Your task to perform on an android device: Open privacy settings Image 0: 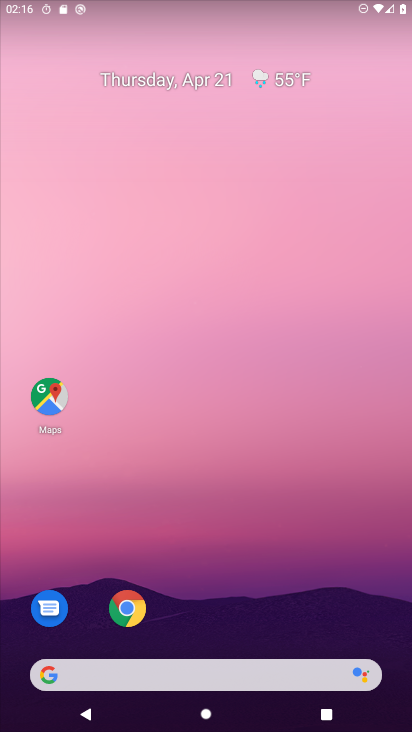
Step 0: press home button
Your task to perform on an android device: Open privacy settings Image 1: 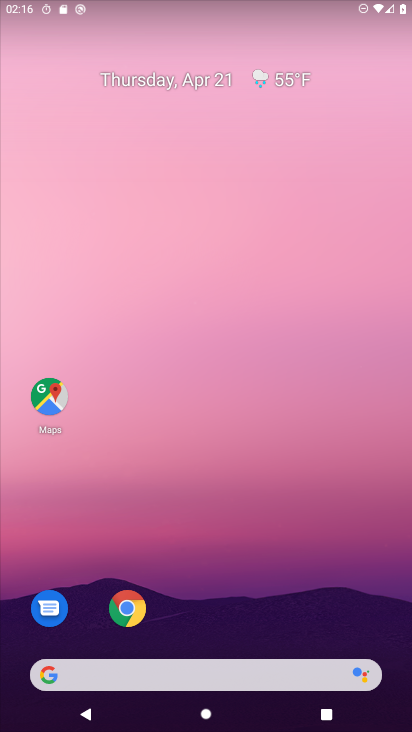
Step 1: click (130, 613)
Your task to perform on an android device: Open privacy settings Image 2: 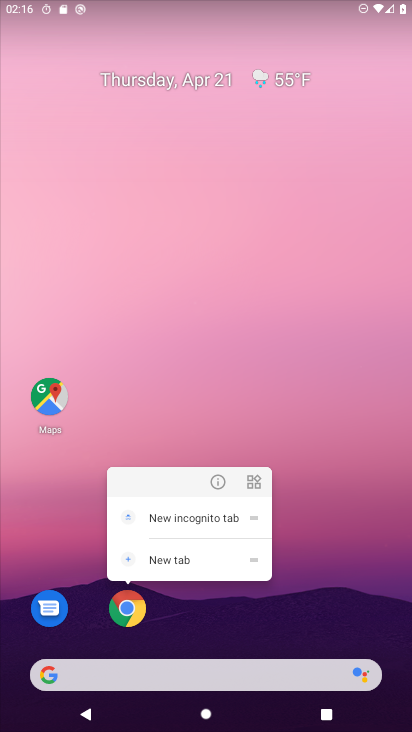
Step 2: click (127, 617)
Your task to perform on an android device: Open privacy settings Image 3: 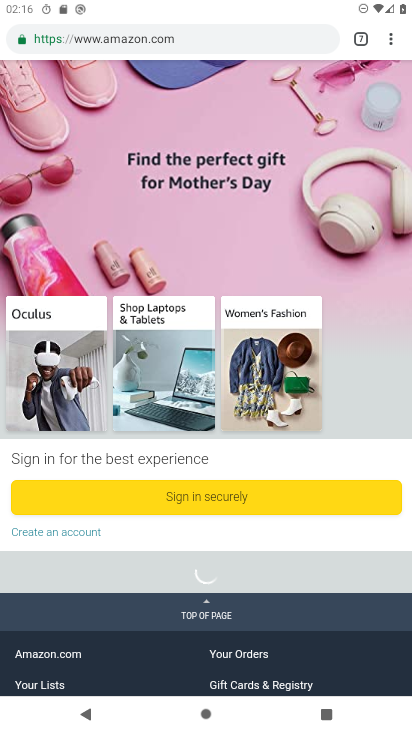
Step 3: drag from (391, 43) to (252, 519)
Your task to perform on an android device: Open privacy settings Image 4: 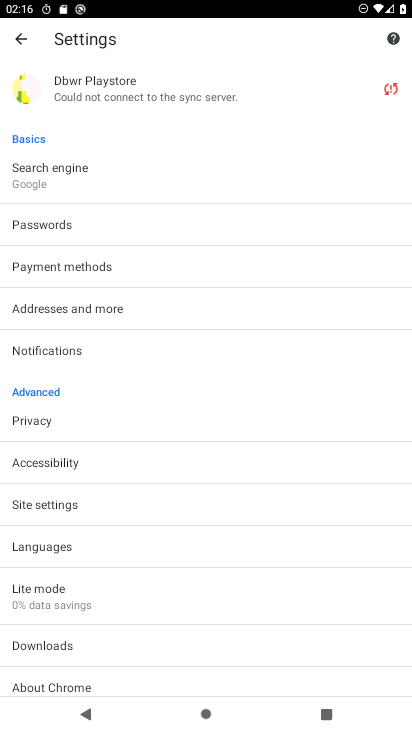
Step 4: click (31, 426)
Your task to perform on an android device: Open privacy settings Image 5: 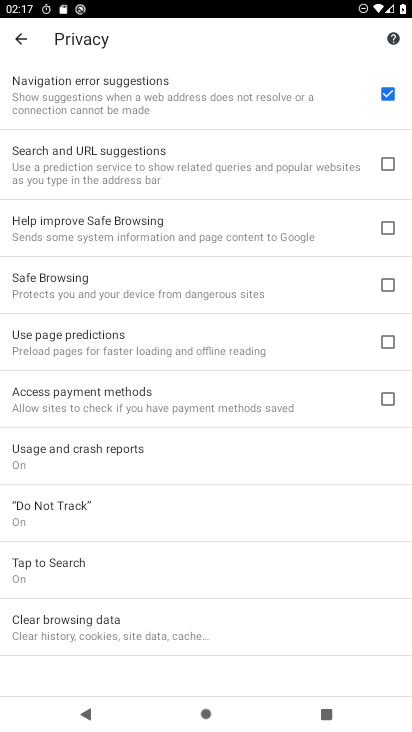
Step 5: task complete